Your task to perform on an android device: What's the weather going to be tomorrow? Image 0: 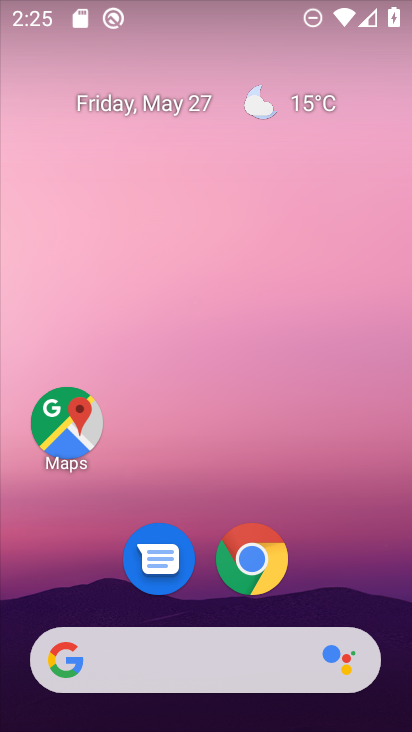
Step 0: drag from (282, 664) to (347, 3)
Your task to perform on an android device: What's the weather going to be tomorrow? Image 1: 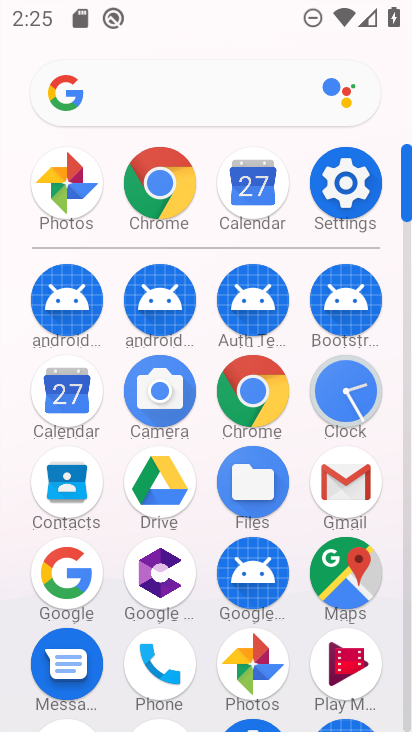
Step 1: press home button
Your task to perform on an android device: What's the weather going to be tomorrow? Image 2: 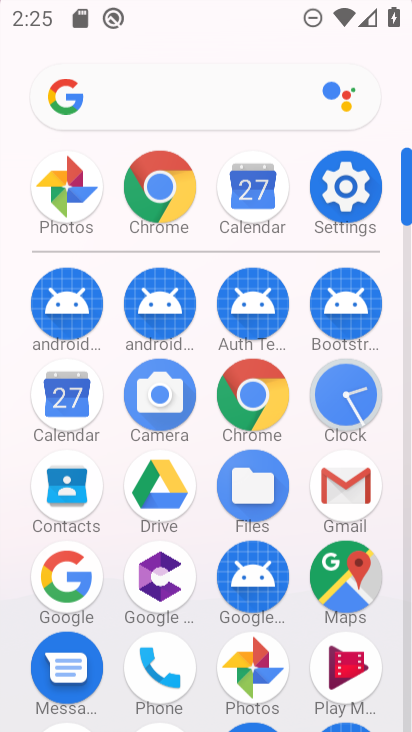
Step 2: click (391, 465)
Your task to perform on an android device: What's the weather going to be tomorrow? Image 3: 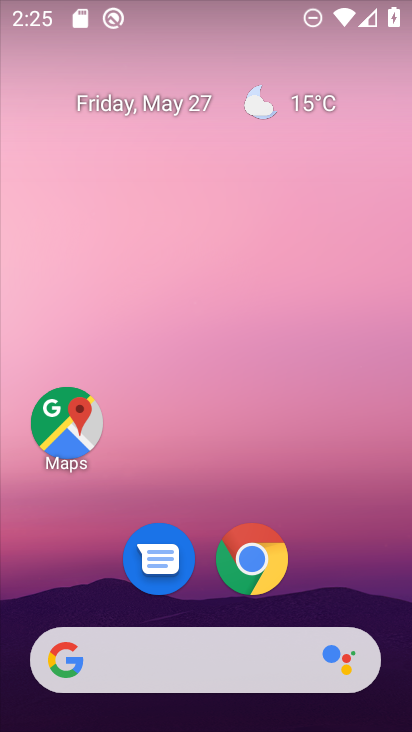
Step 3: drag from (26, 267) to (407, 333)
Your task to perform on an android device: What's the weather going to be tomorrow? Image 4: 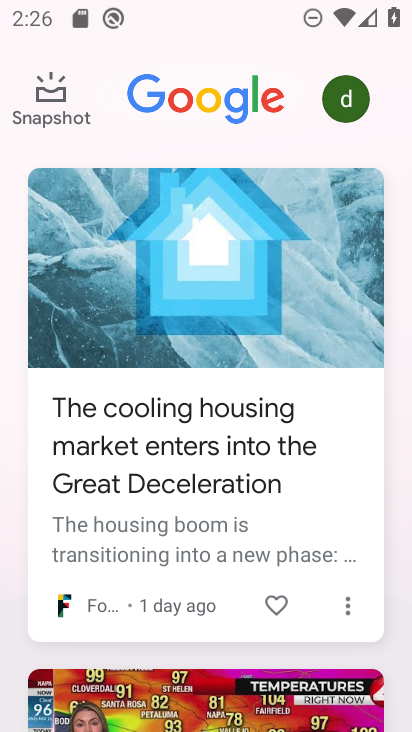
Step 4: drag from (278, 202) to (253, 721)
Your task to perform on an android device: What's the weather going to be tomorrow? Image 5: 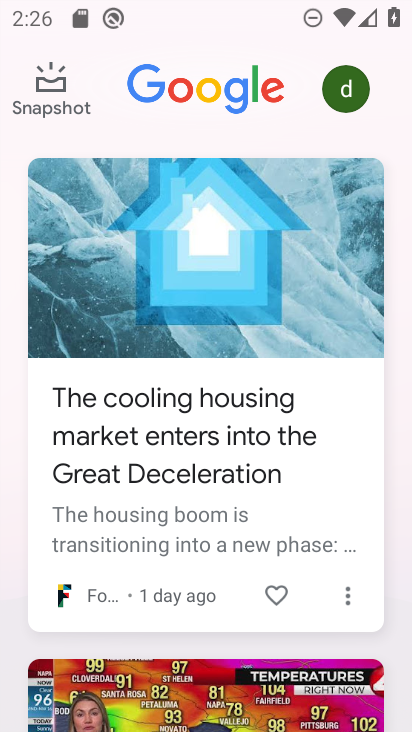
Step 5: drag from (252, 187) to (303, 698)
Your task to perform on an android device: What's the weather going to be tomorrow? Image 6: 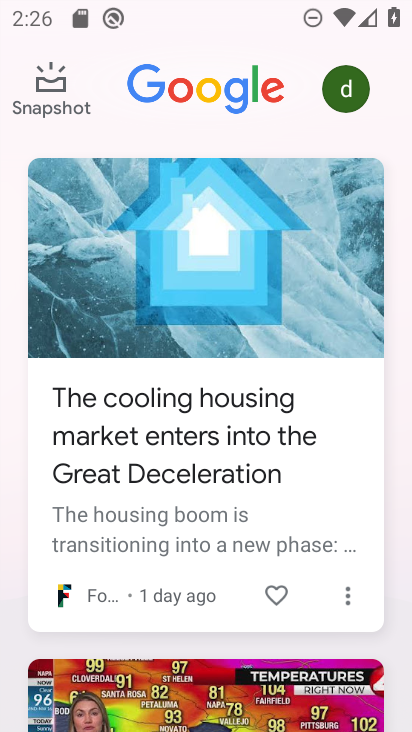
Step 6: press home button
Your task to perform on an android device: What's the weather going to be tomorrow? Image 7: 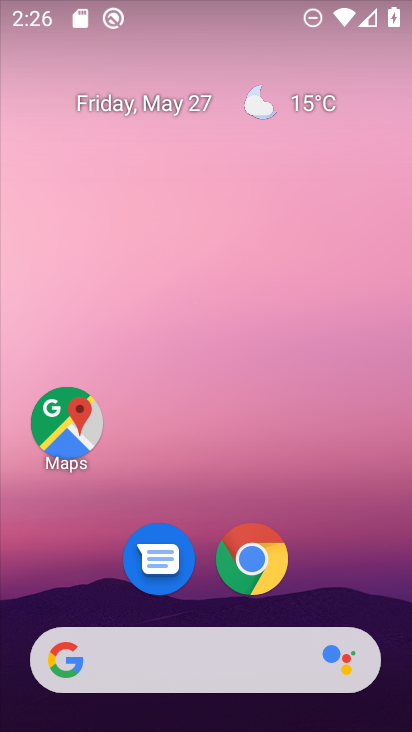
Step 7: drag from (309, 530) to (268, 0)
Your task to perform on an android device: What's the weather going to be tomorrow? Image 8: 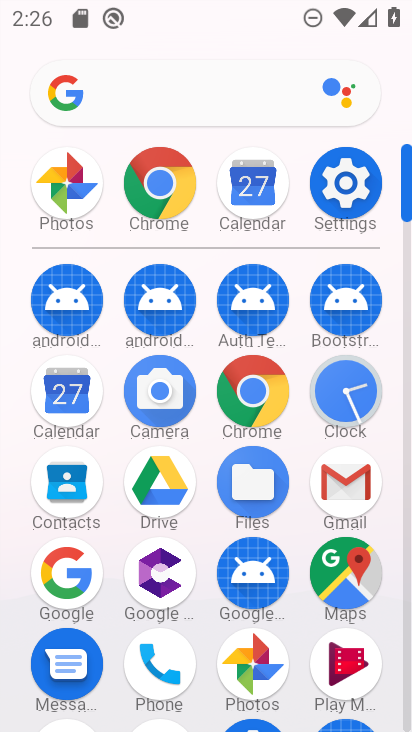
Step 8: click (87, 577)
Your task to perform on an android device: What's the weather going to be tomorrow? Image 9: 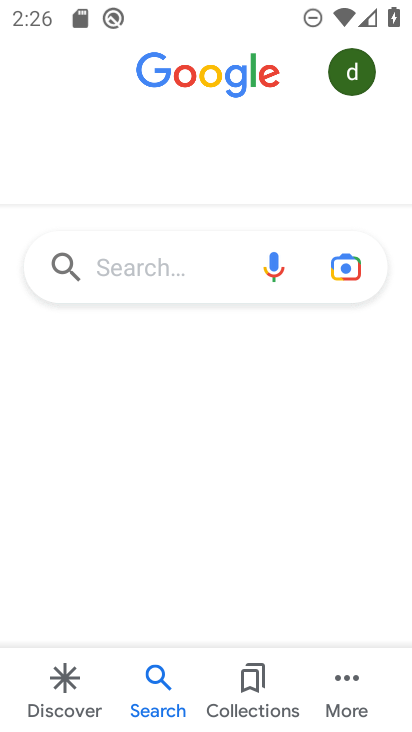
Step 9: click (121, 281)
Your task to perform on an android device: What's the weather going to be tomorrow? Image 10: 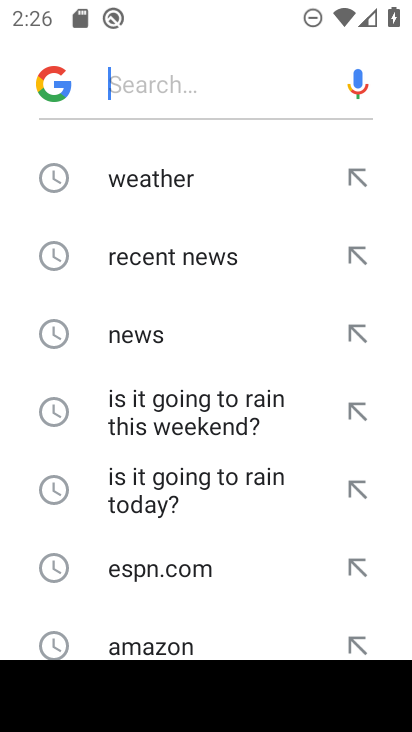
Step 10: click (118, 185)
Your task to perform on an android device: What's the weather going to be tomorrow? Image 11: 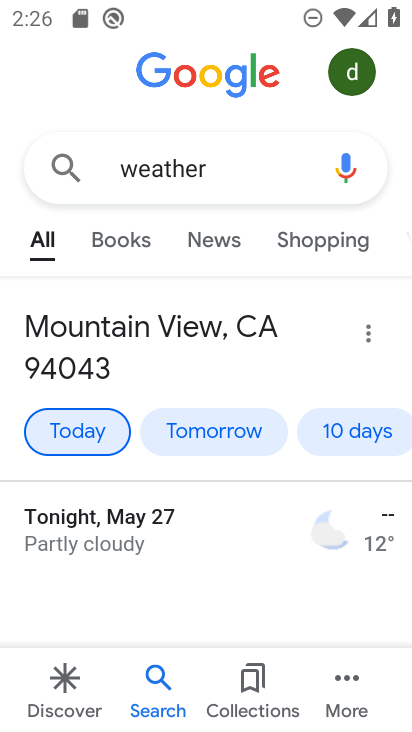
Step 11: click (231, 424)
Your task to perform on an android device: What's the weather going to be tomorrow? Image 12: 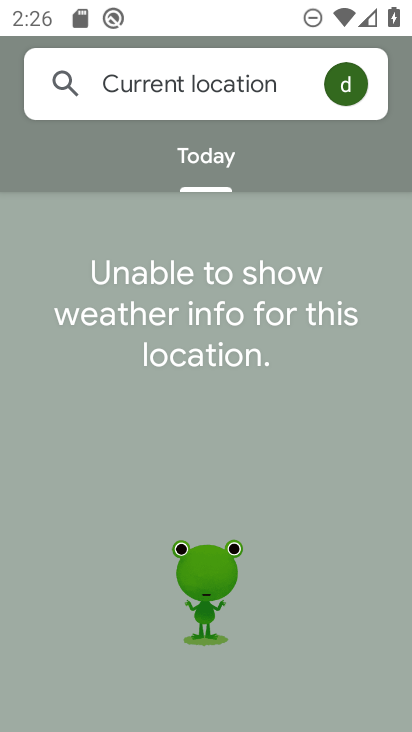
Step 12: task complete